Your task to perform on an android device: refresh tabs in the chrome app Image 0: 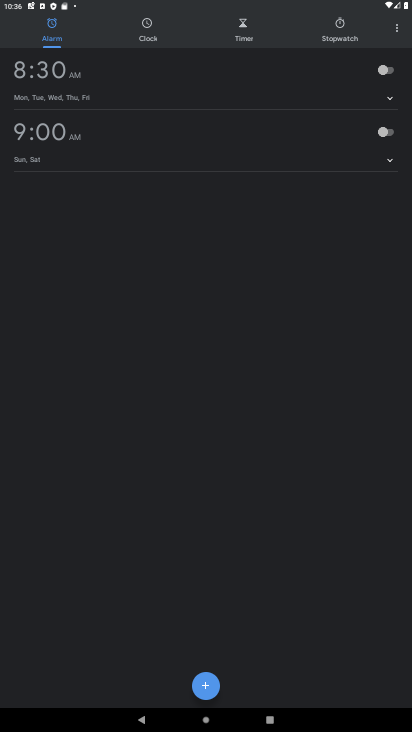
Step 0: press home button
Your task to perform on an android device: refresh tabs in the chrome app Image 1: 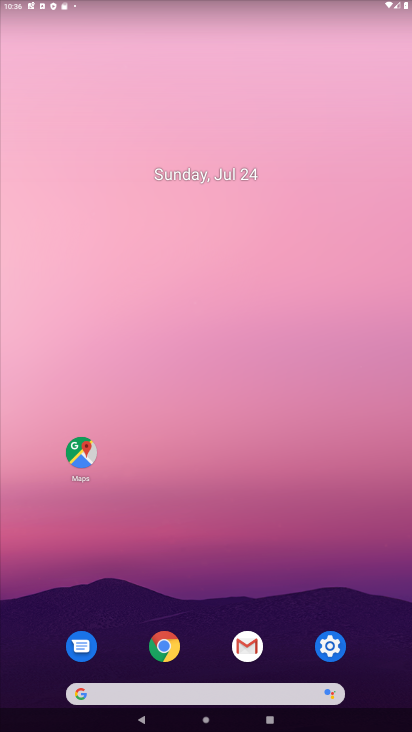
Step 1: click (162, 651)
Your task to perform on an android device: refresh tabs in the chrome app Image 2: 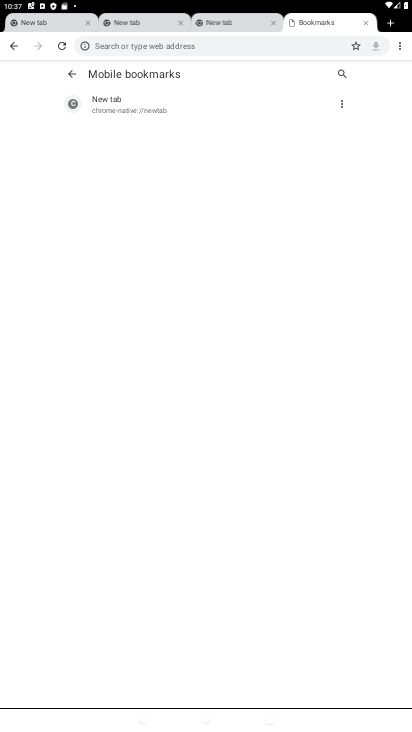
Step 2: click (403, 45)
Your task to perform on an android device: refresh tabs in the chrome app Image 3: 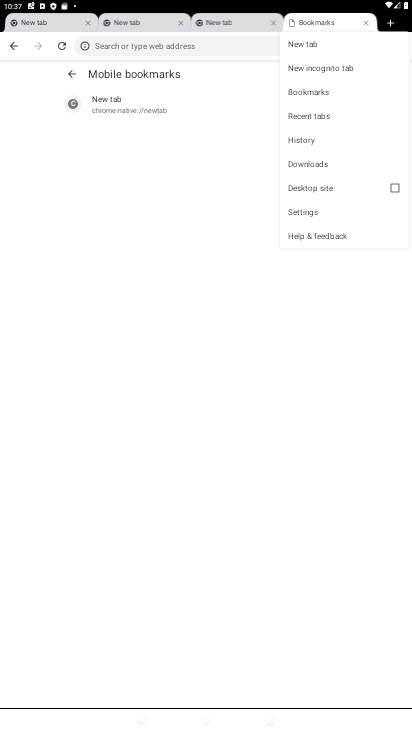
Step 3: click (62, 41)
Your task to perform on an android device: refresh tabs in the chrome app Image 4: 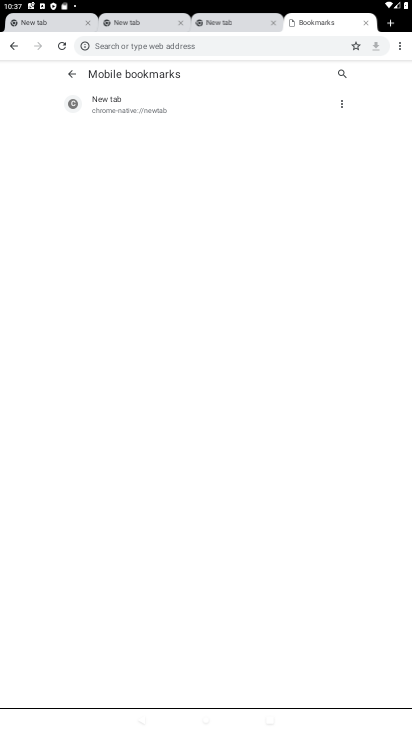
Step 4: click (62, 41)
Your task to perform on an android device: refresh tabs in the chrome app Image 5: 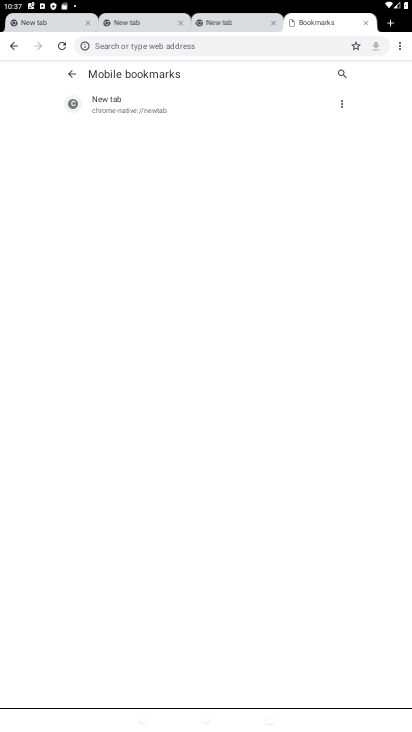
Step 5: task complete